Your task to perform on an android device: turn notification dots off Image 0: 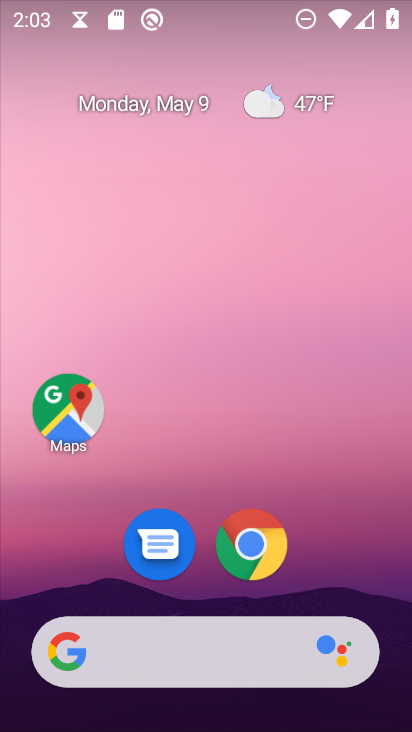
Step 0: drag from (342, 564) to (359, 98)
Your task to perform on an android device: turn notification dots off Image 1: 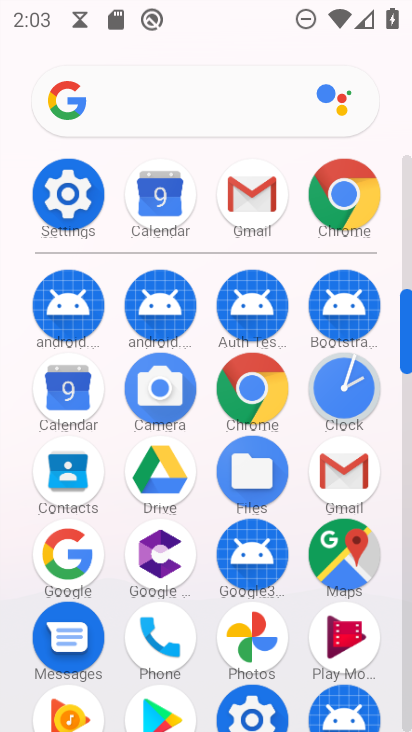
Step 1: click (101, 169)
Your task to perform on an android device: turn notification dots off Image 2: 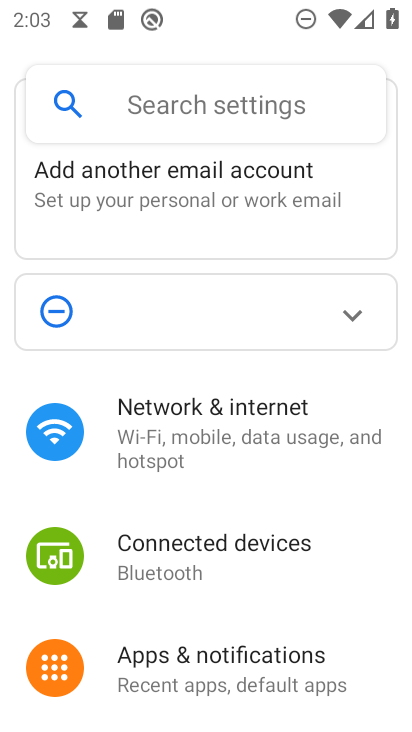
Step 2: click (279, 671)
Your task to perform on an android device: turn notification dots off Image 3: 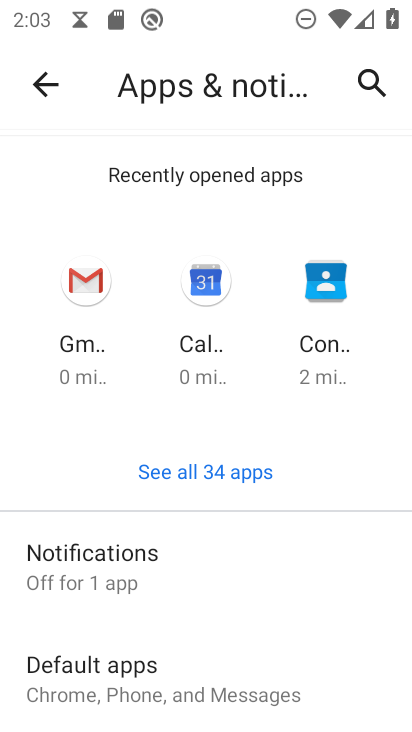
Step 3: click (144, 577)
Your task to perform on an android device: turn notification dots off Image 4: 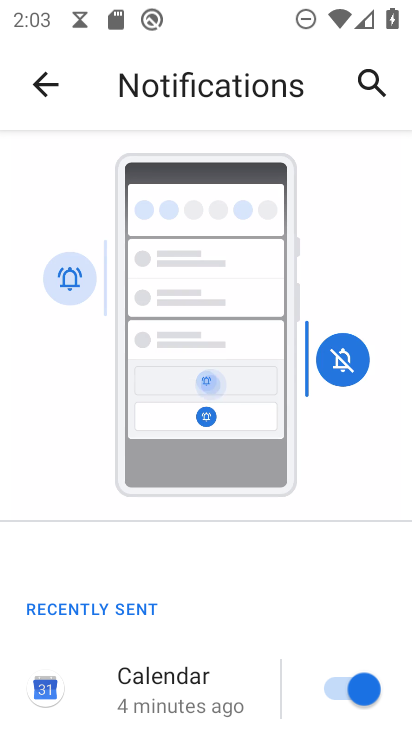
Step 4: drag from (225, 685) to (190, 407)
Your task to perform on an android device: turn notification dots off Image 5: 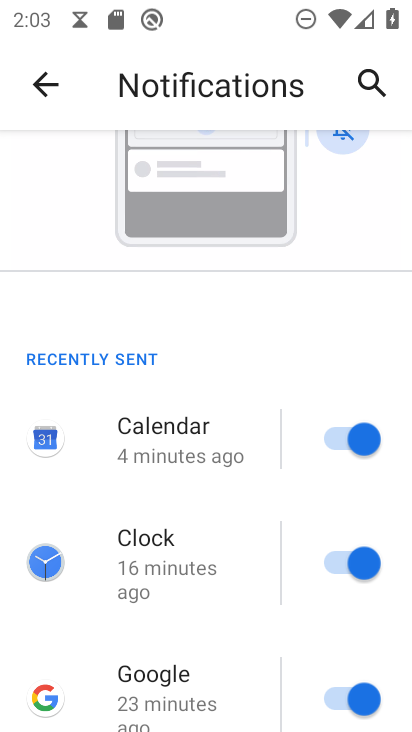
Step 5: drag from (196, 597) to (220, 259)
Your task to perform on an android device: turn notification dots off Image 6: 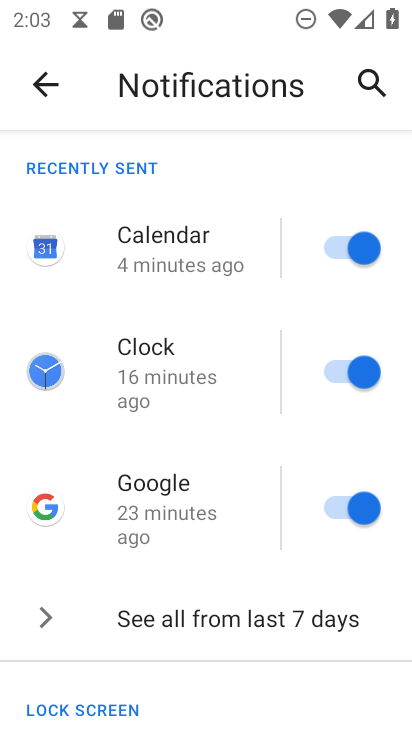
Step 6: drag from (244, 660) to (298, 363)
Your task to perform on an android device: turn notification dots off Image 7: 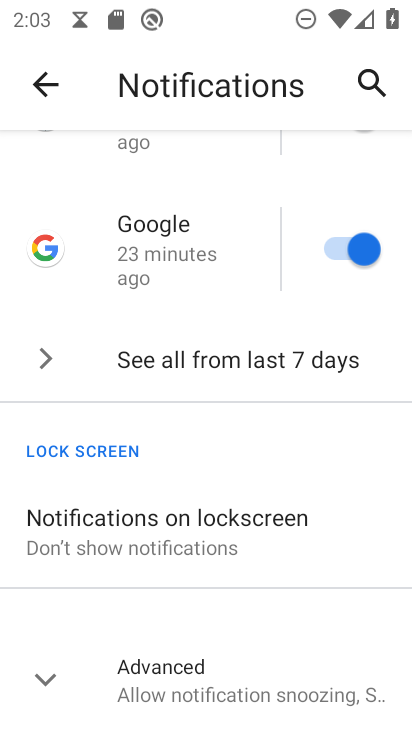
Step 7: drag from (248, 664) to (319, 320)
Your task to perform on an android device: turn notification dots off Image 8: 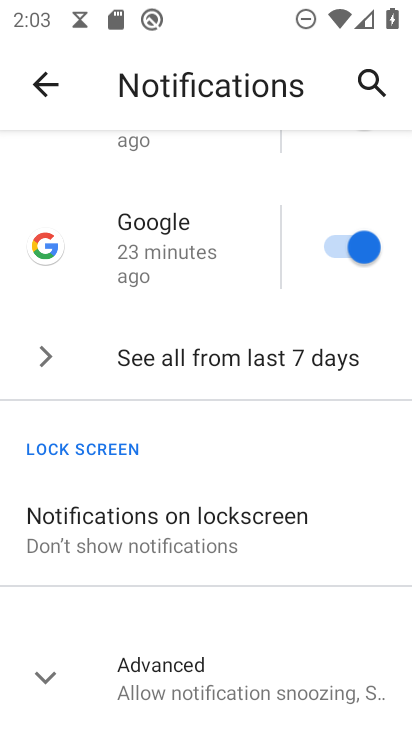
Step 8: click (188, 675)
Your task to perform on an android device: turn notification dots off Image 9: 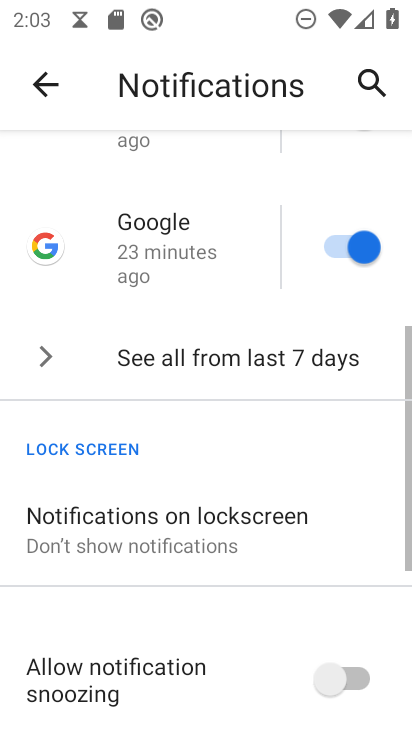
Step 9: task complete